Your task to perform on an android device: Clear the cart on ebay.com. Add "usb-a to usb-b" to the cart on ebay.com Image 0: 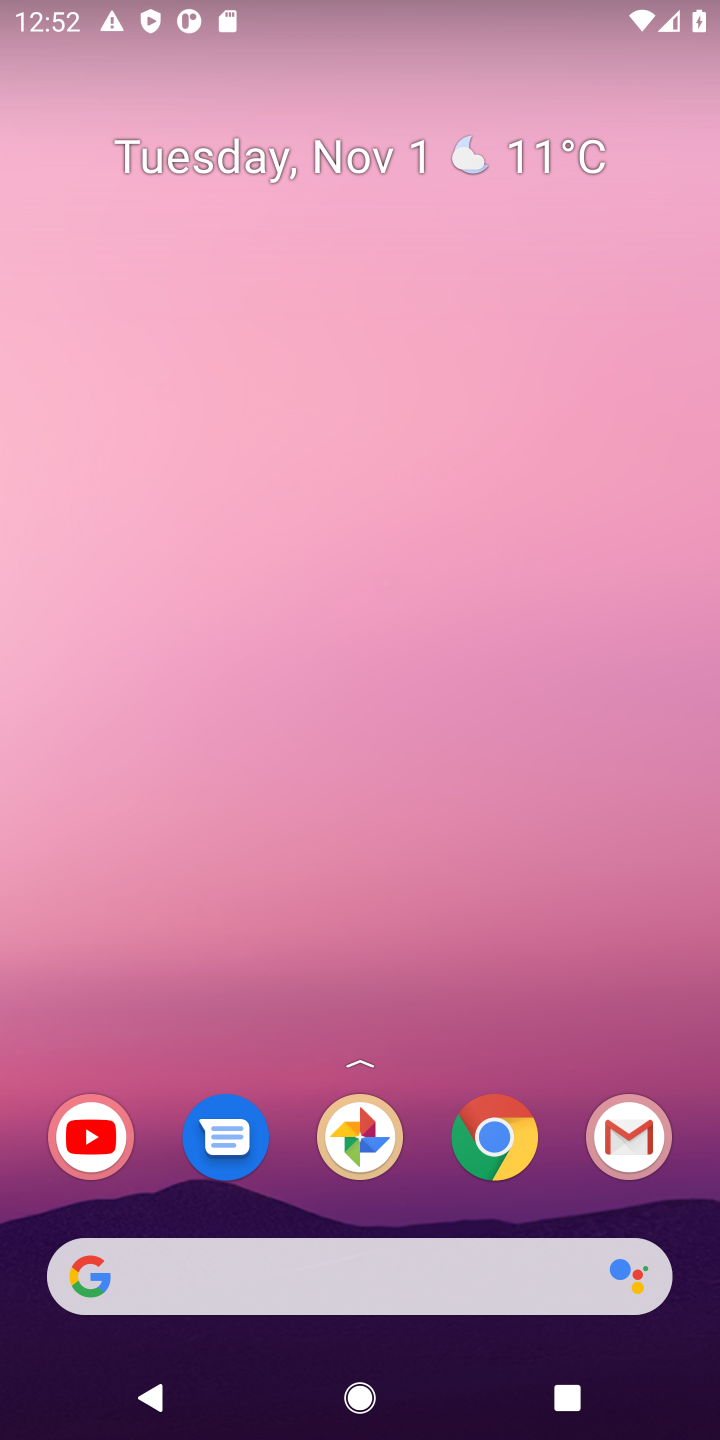
Step 0: click (506, 1143)
Your task to perform on an android device: Clear the cart on ebay.com. Add "usb-a to usb-b" to the cart on ebay.com Image 1: 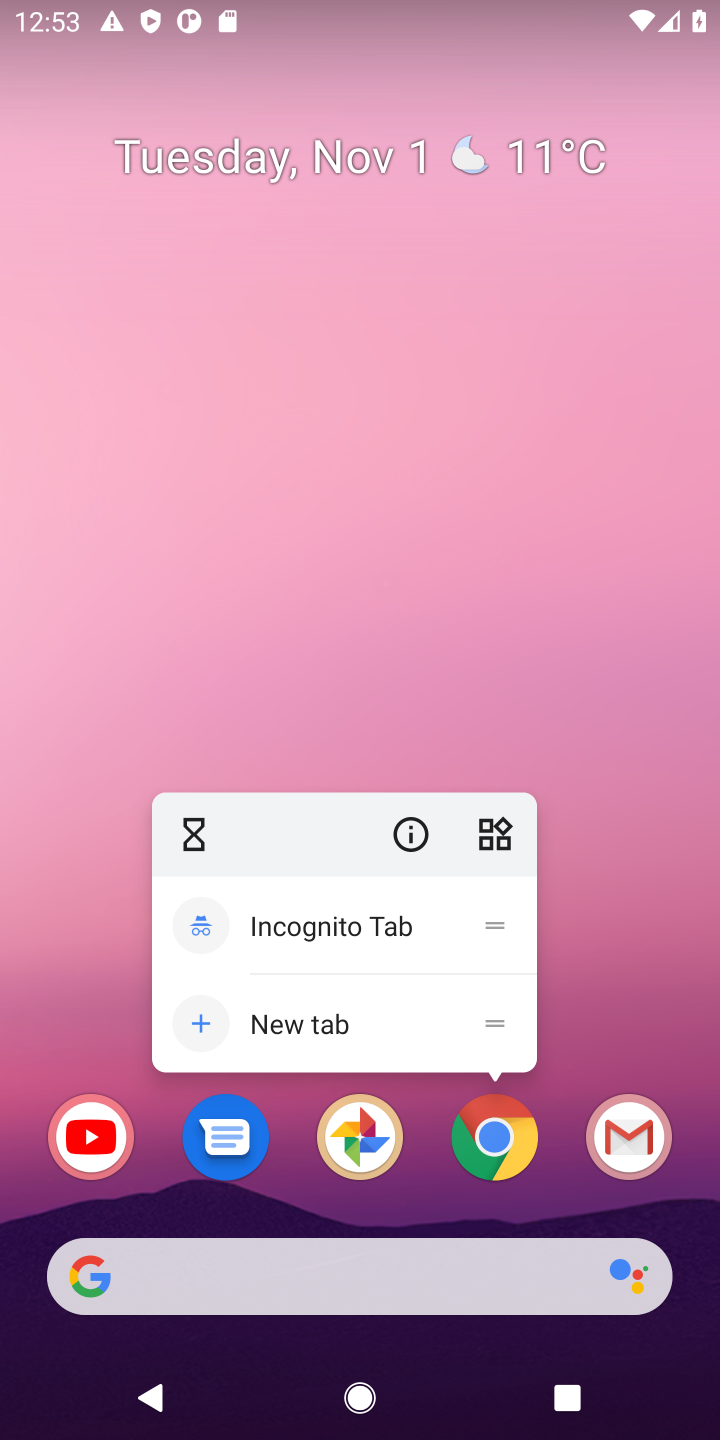
Step 1: click (476, 1145)
Your task to perform on an android device: Clear the cart on ebay.com. Add "usb-a to usb-b" to the cart on ebay.com Image 2: 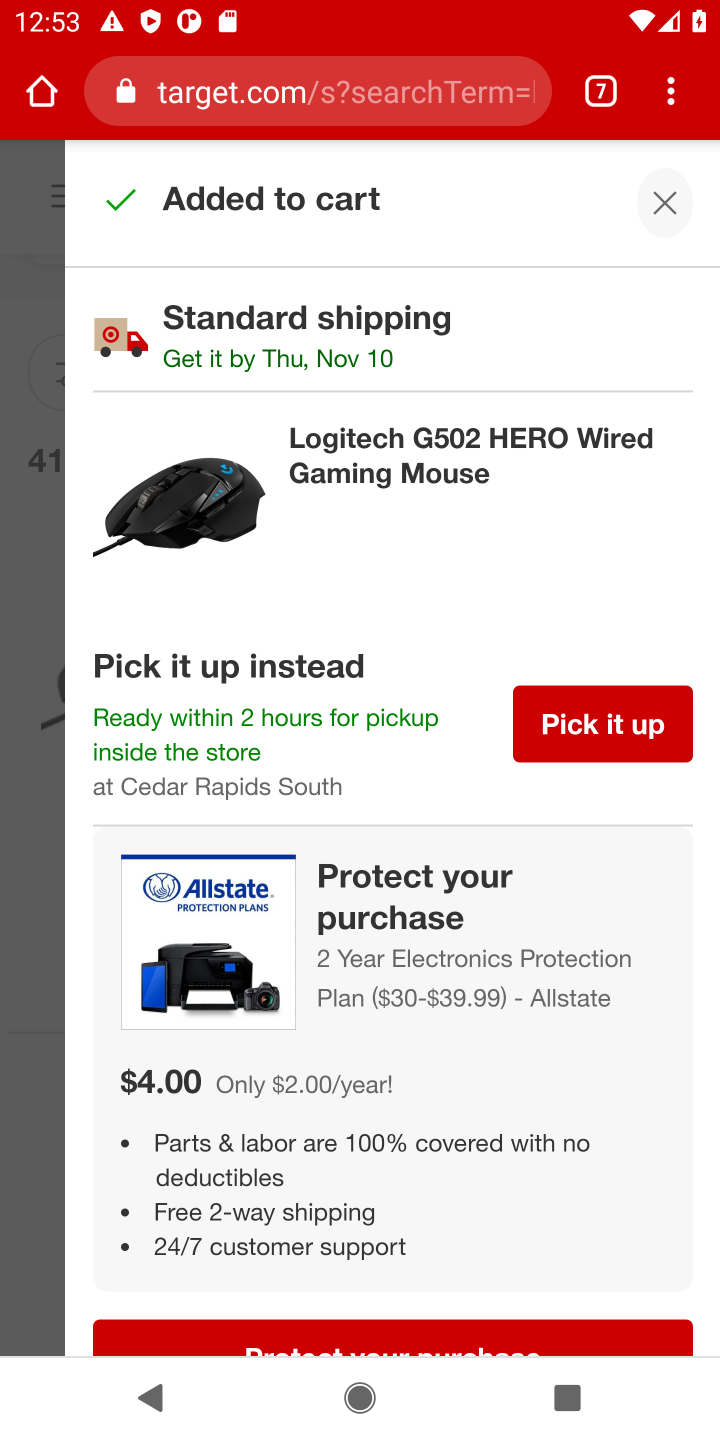
Step 2: click (589, 81)
Your task to perform on an android device: Clear the cart on ebay.com. Add "usb-a to usb-b" to the cart on ebay.com Image 3: 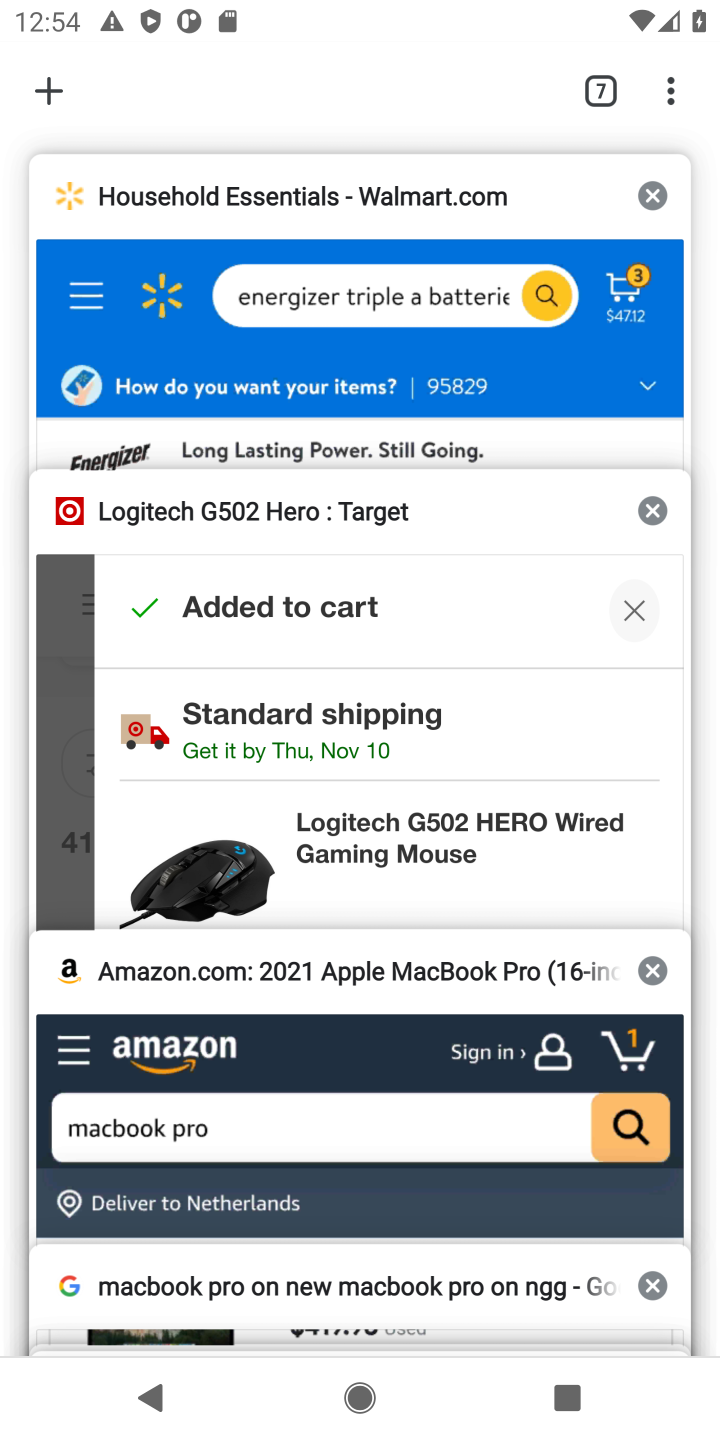
Step 3: drag from (274, 1176) to (428, 677)
Your task to perform on an android device: Clear the cart on ebay.com. Add "usb-a to usb-b" to the cart on ebay.com Image 4: 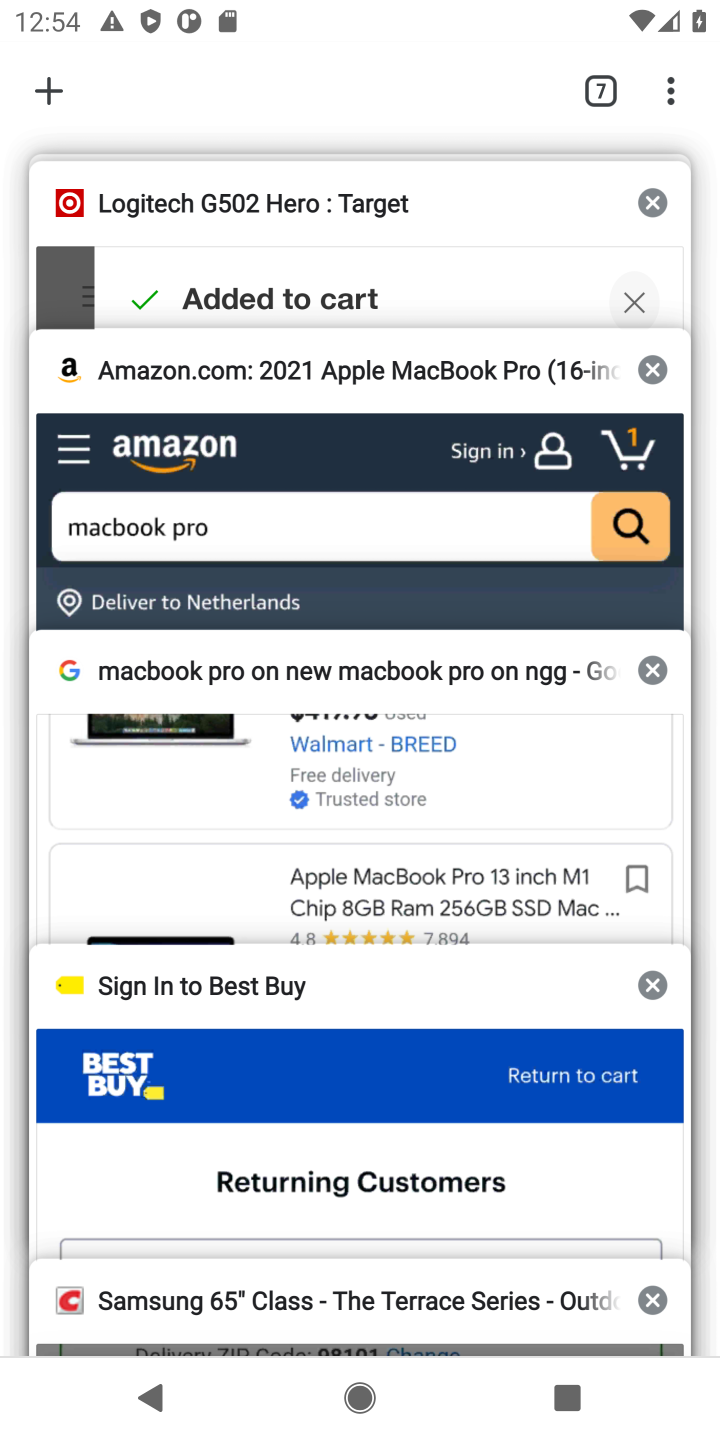
Step 4: drag from (420, 1110) to (514, 279)
Your task to perform on an android device: Clear the cart on ebay.com. Add "usb-a to usb-b" to the cart on ebay.com Image 5: 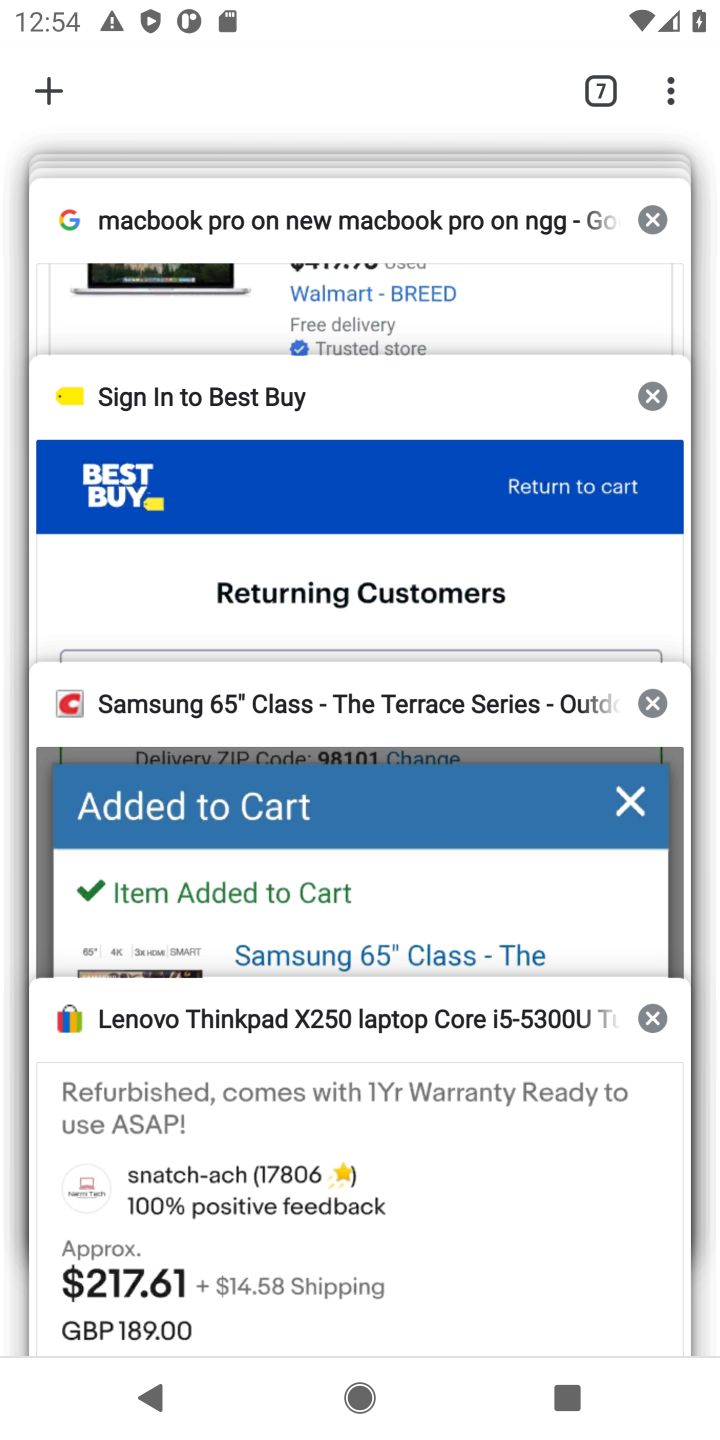
Step 5: click (157, 1196)
Your task to perform on an android device: Clear the cart on ebay.com. Add "usb-a to usb-b" to the cart on ebay.com Image 6: 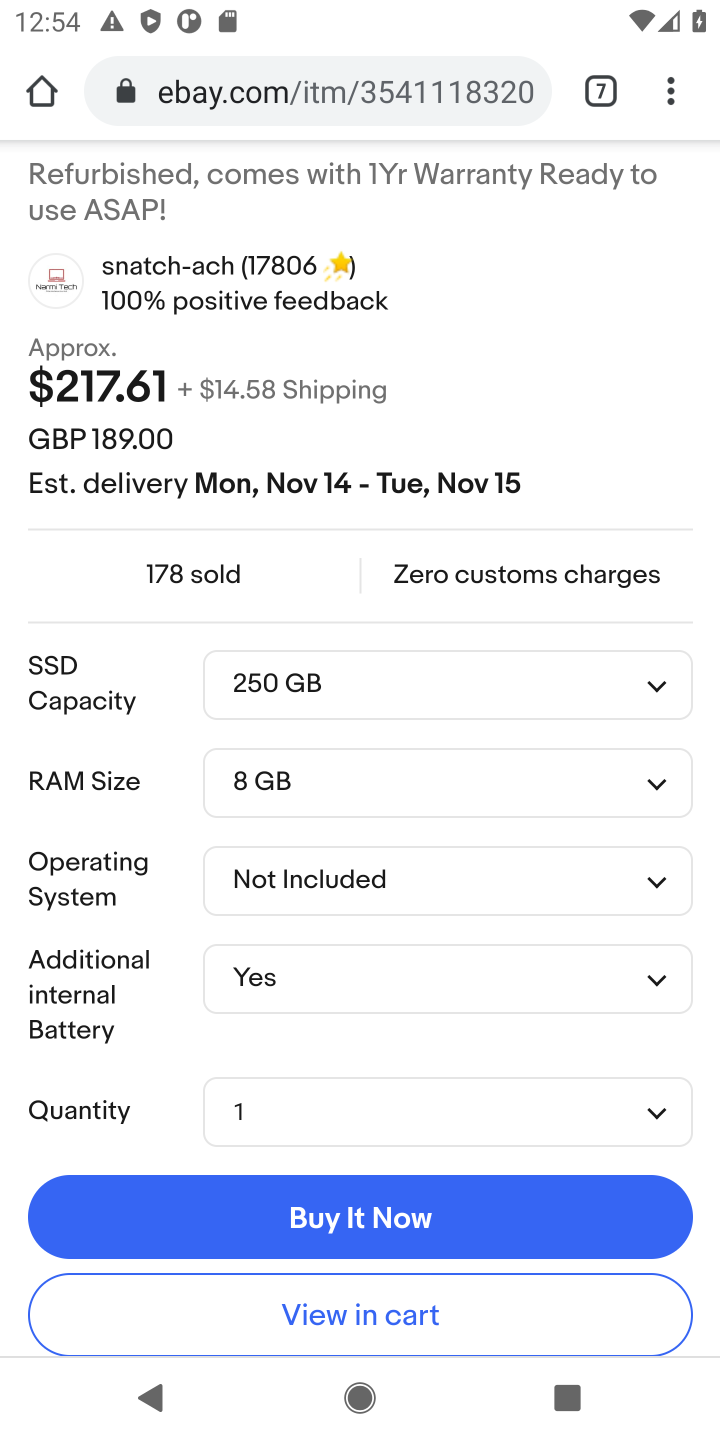
Step 6: drag from (527, 386) to (410, 1252)
Your task to perform on an android device: Clear the cart on ebay.com. Add "usb-a to usb-b" to the cart on ebay.com Image 7: 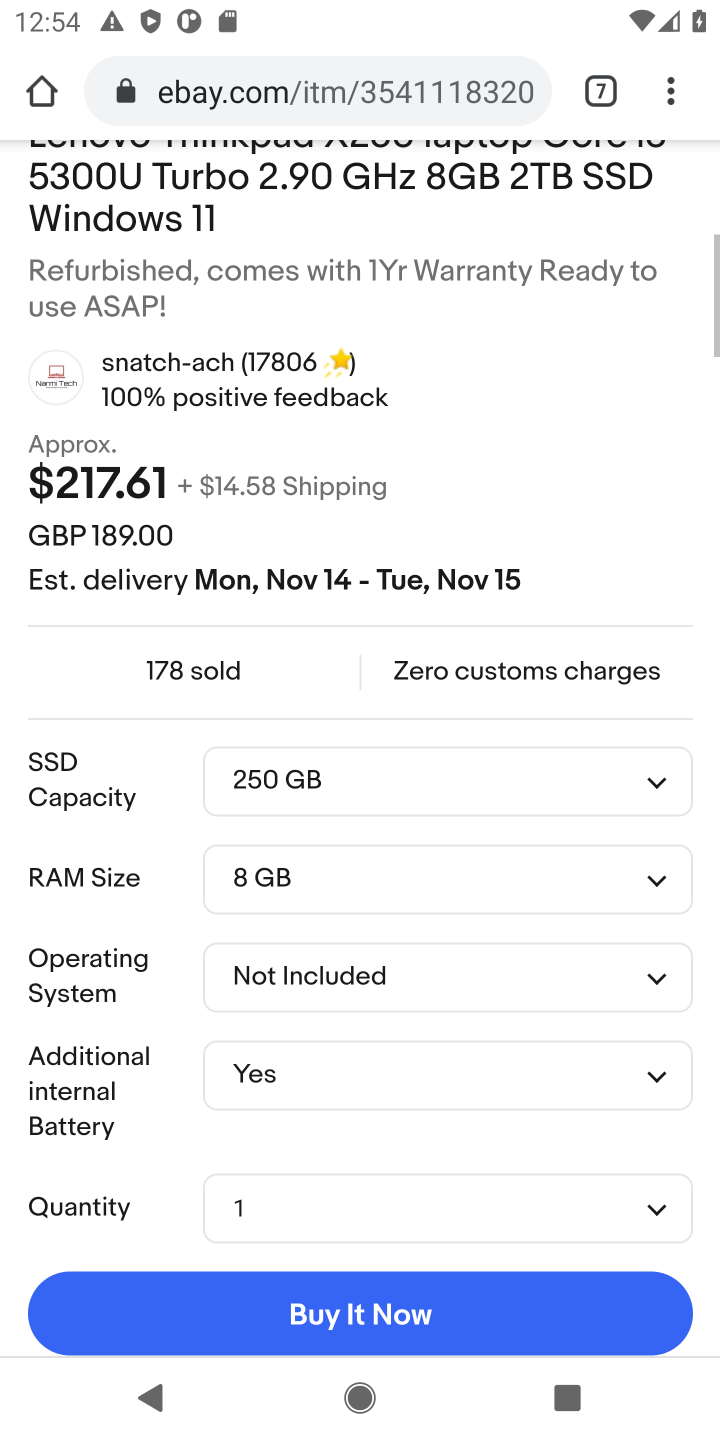
Step 7: drag from (481, 1104) to (536, 1393)
Your task to perform on an android device: Clear the cart on ebay.com. Add "usb-a to usb-b" to the cart on ebay.com Image 8: 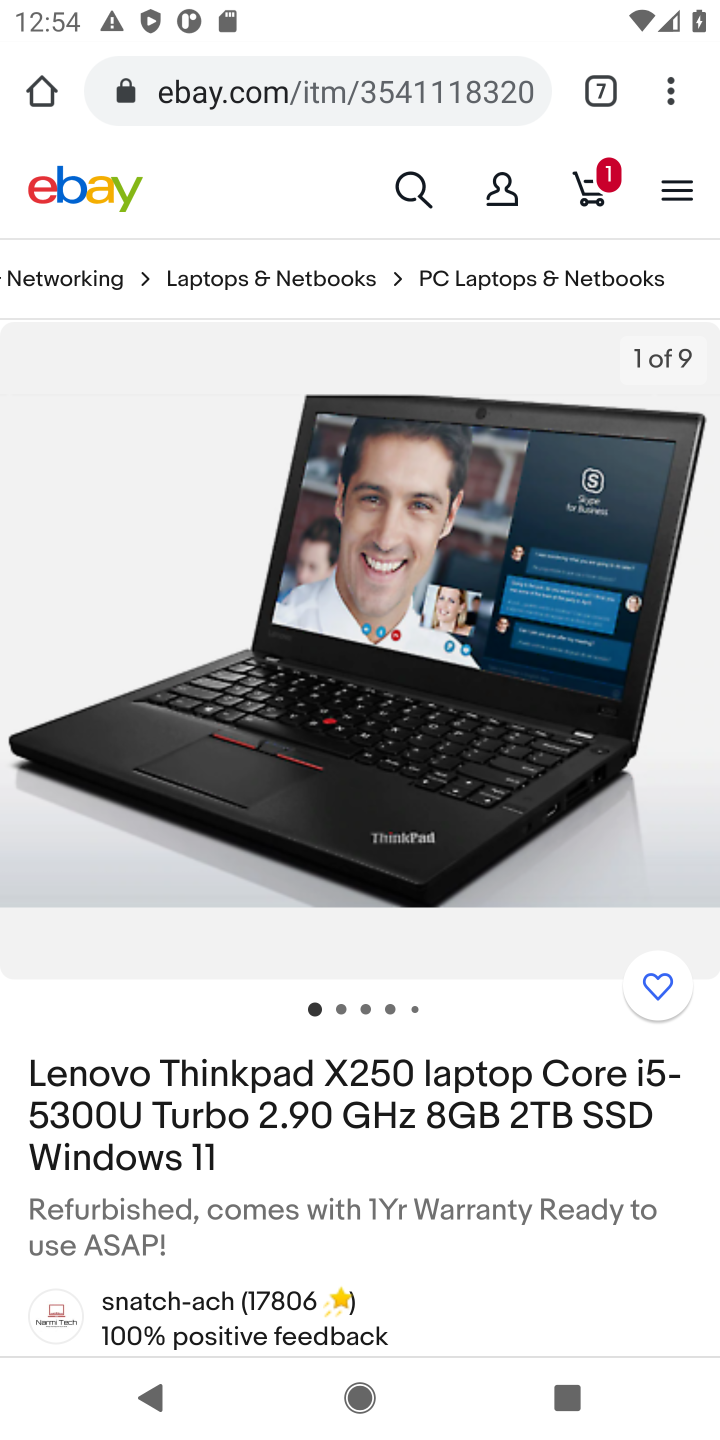
Step 8: drag from (616, 489) to (626, 1238)
Your task to perform on an android device: Clear the cart on ebay.com. Add "usb-a to usb-b" to the cart on ebay.com Image 9: 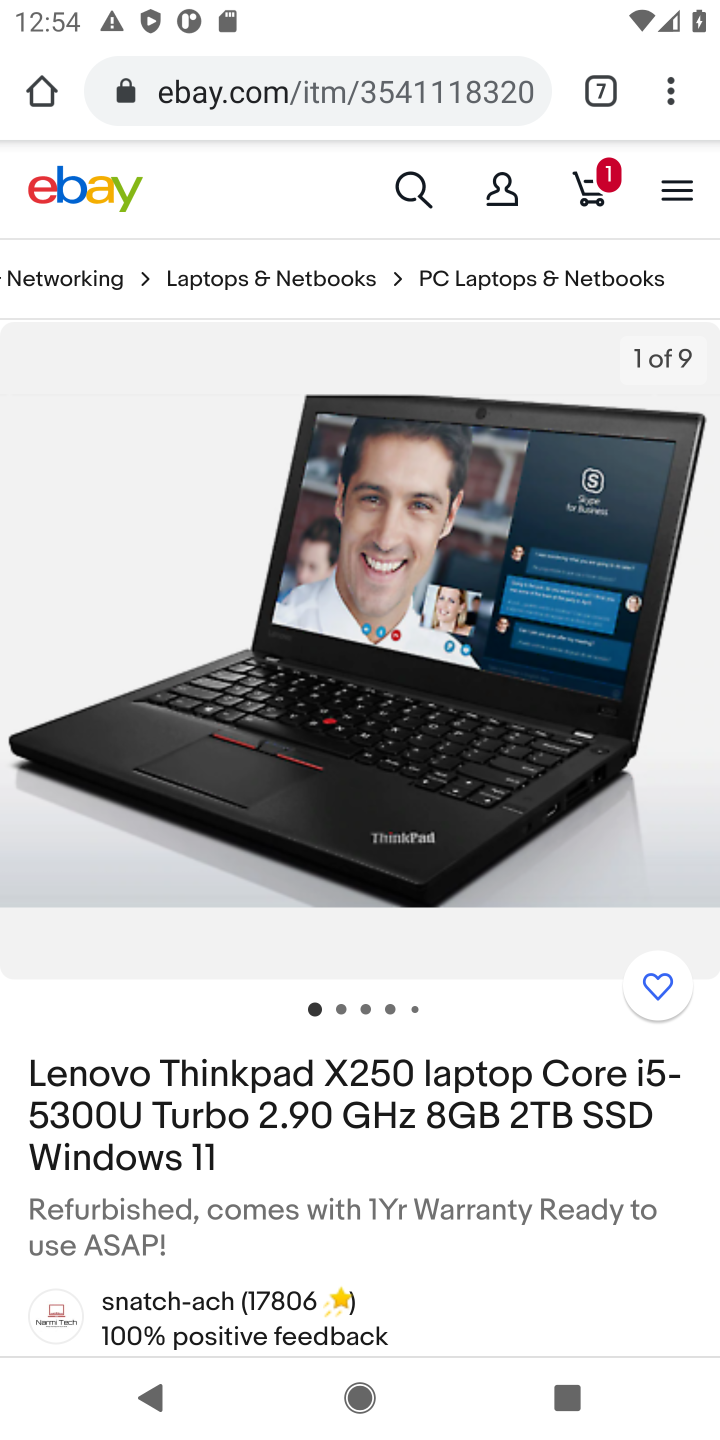
Step 9: click (596, 181)
Your task to perform on an android device: Clear the cart on ebay.com. Add "usb-a to usb-b" to the cart on ebay.com Image 10: 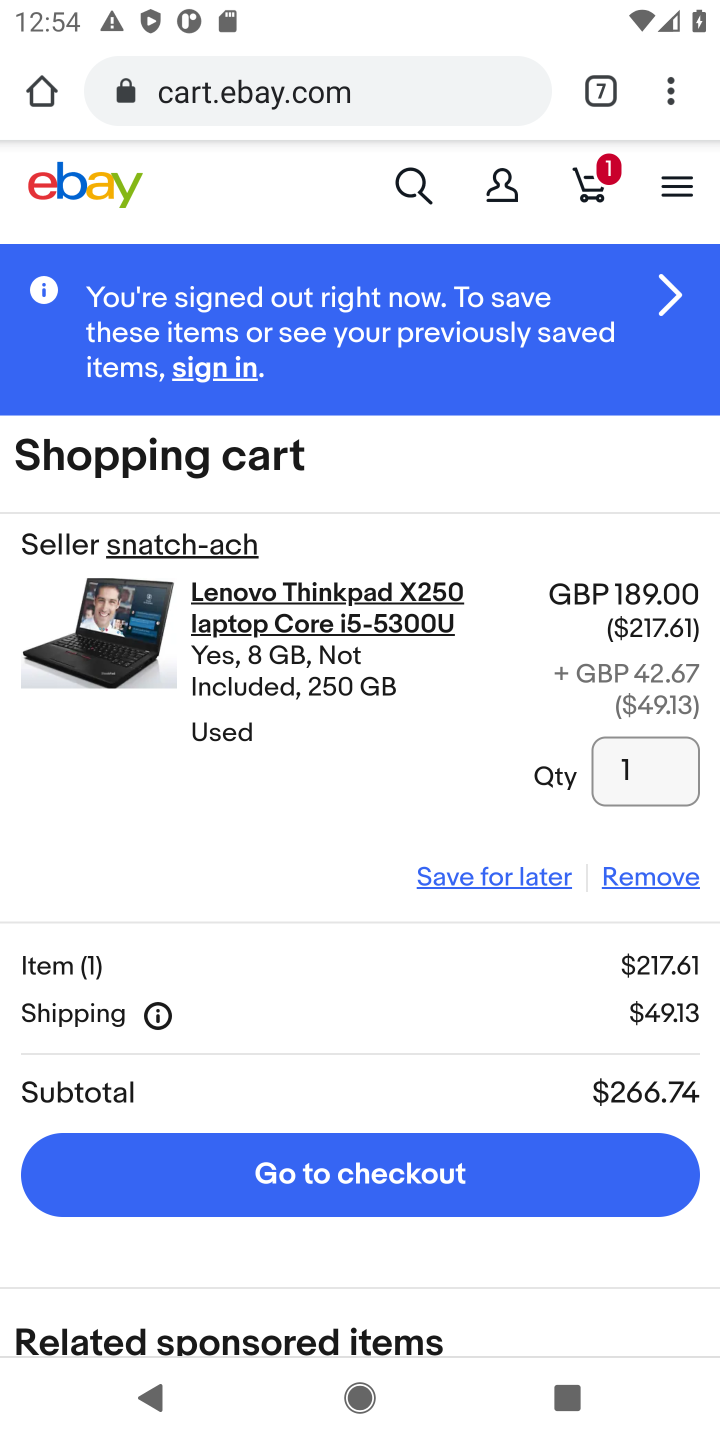
Step 10: click (624, 860)
Your task to perform on an android device: Clear the cart on ebay.com. Add "usb-a to usb-b" to the cart on ebay.com Image 11: 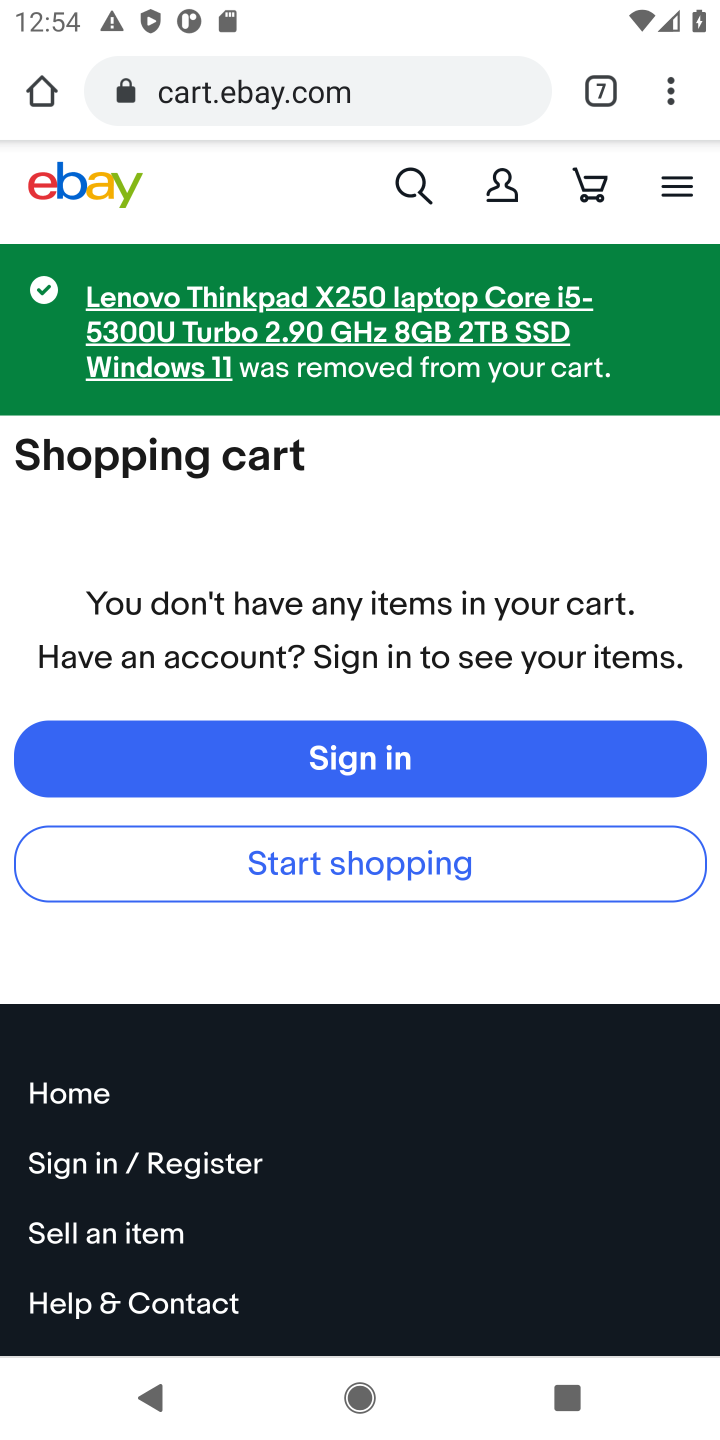
Step 11: click (410, 178)
Your task to perform on an android device: Clear the cart on ebay.com. Add "usb-a to usb-b" to the cart on ebay.com Image 12: 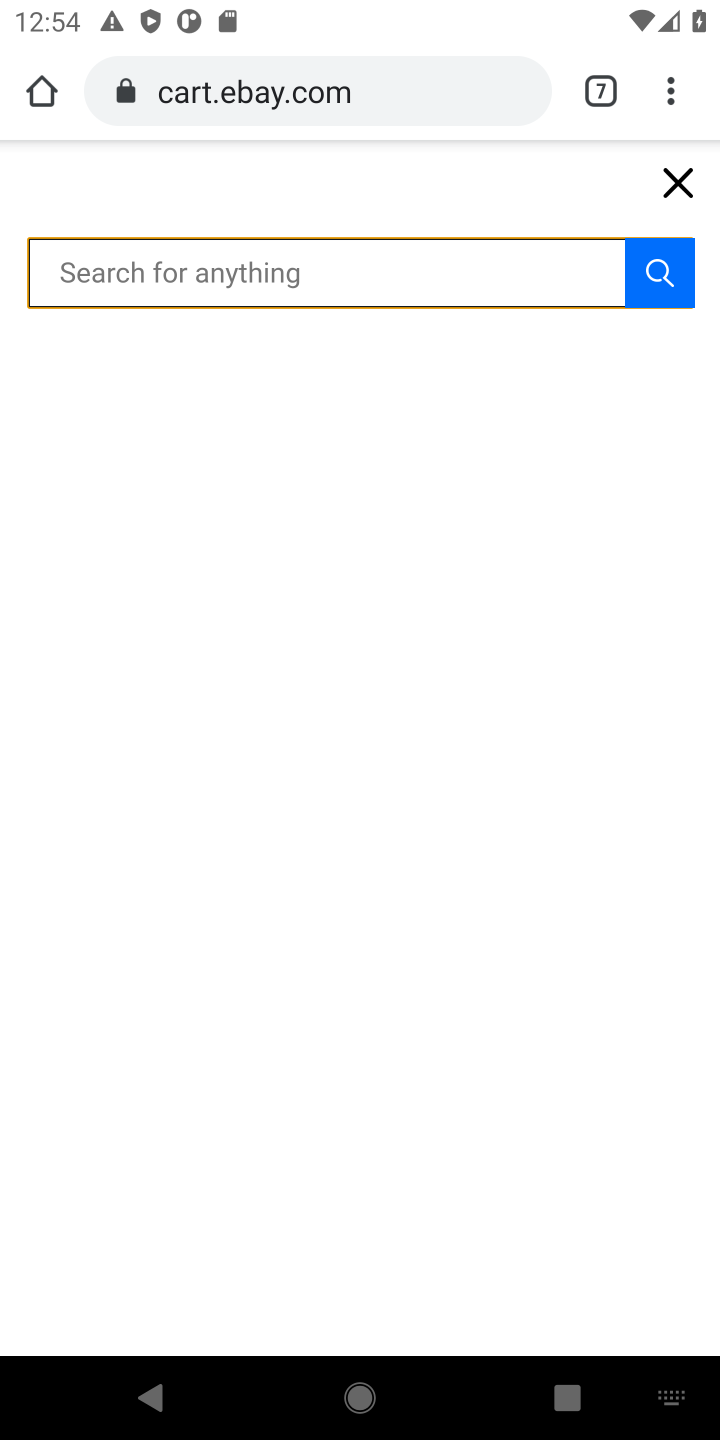
Step 12: type "usb-a to usb-b"
Your task to perform on an android device: Clear the cart on ebay.com. Add "usb-a to usb-b" to the cart on ebay.com Image 13: 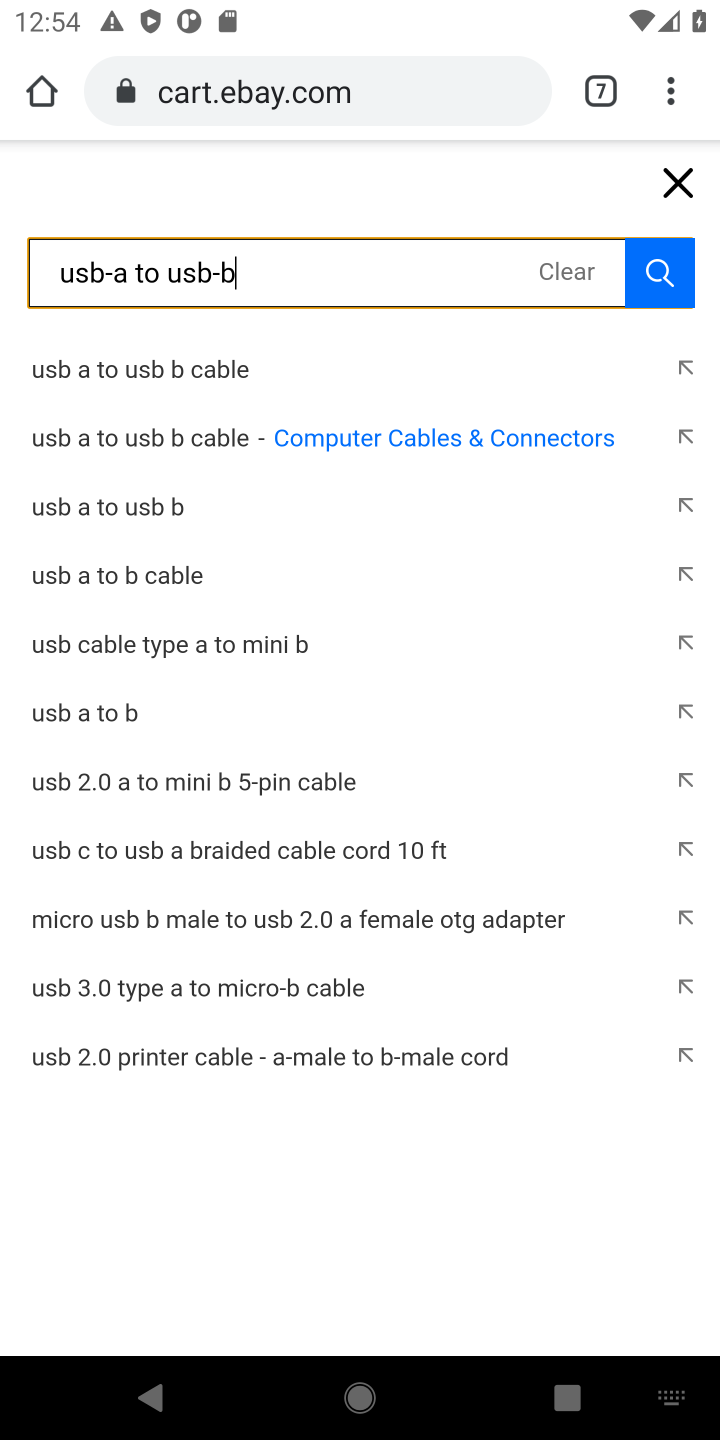
Step 13: click (44, 429)
Your task to perform on an android device: Clear the cart on ebay.com. Add "usb-a to usb-b" to the cart on ebay.com Image 14: 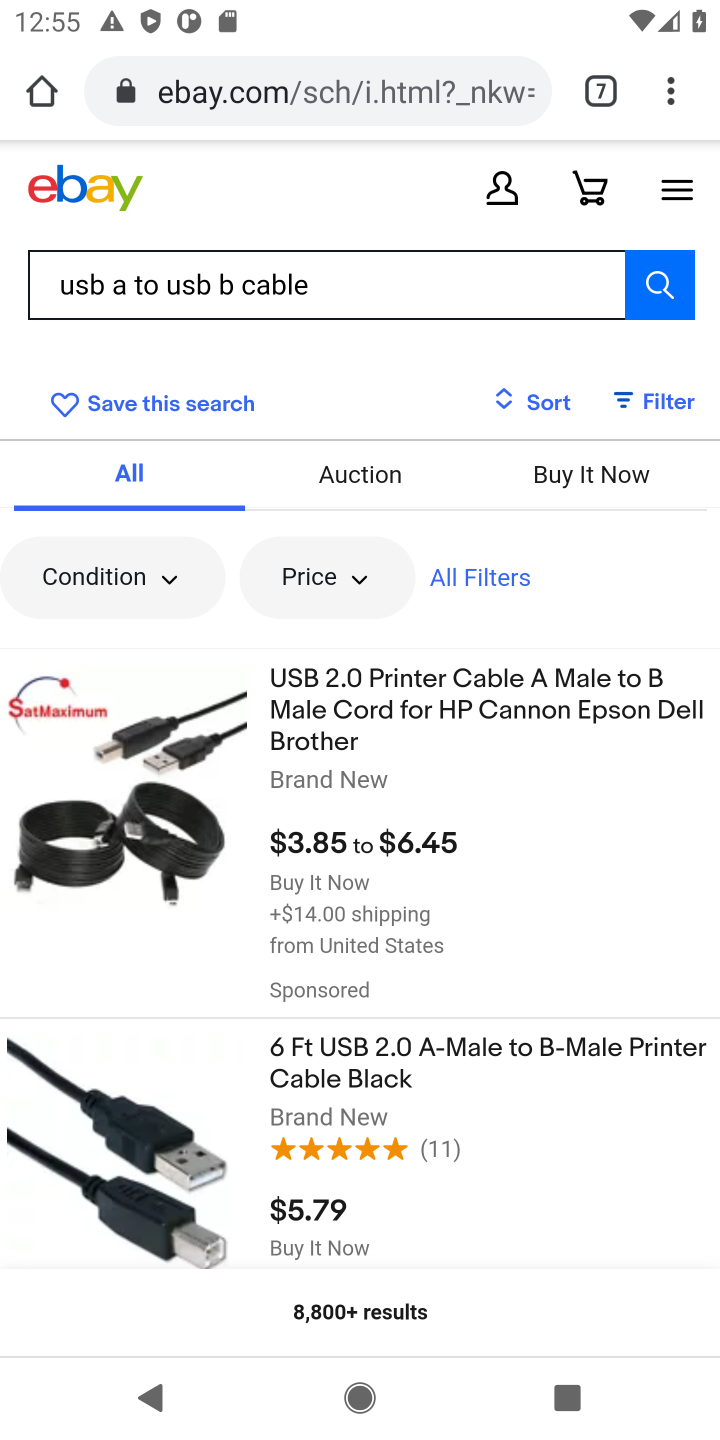
Step 14: click (452, 693)
Your task to perform on an android device: Clear the cart on ebay.com. Add "usb-a to usb-b" to the cart on ebay.com Image 15: 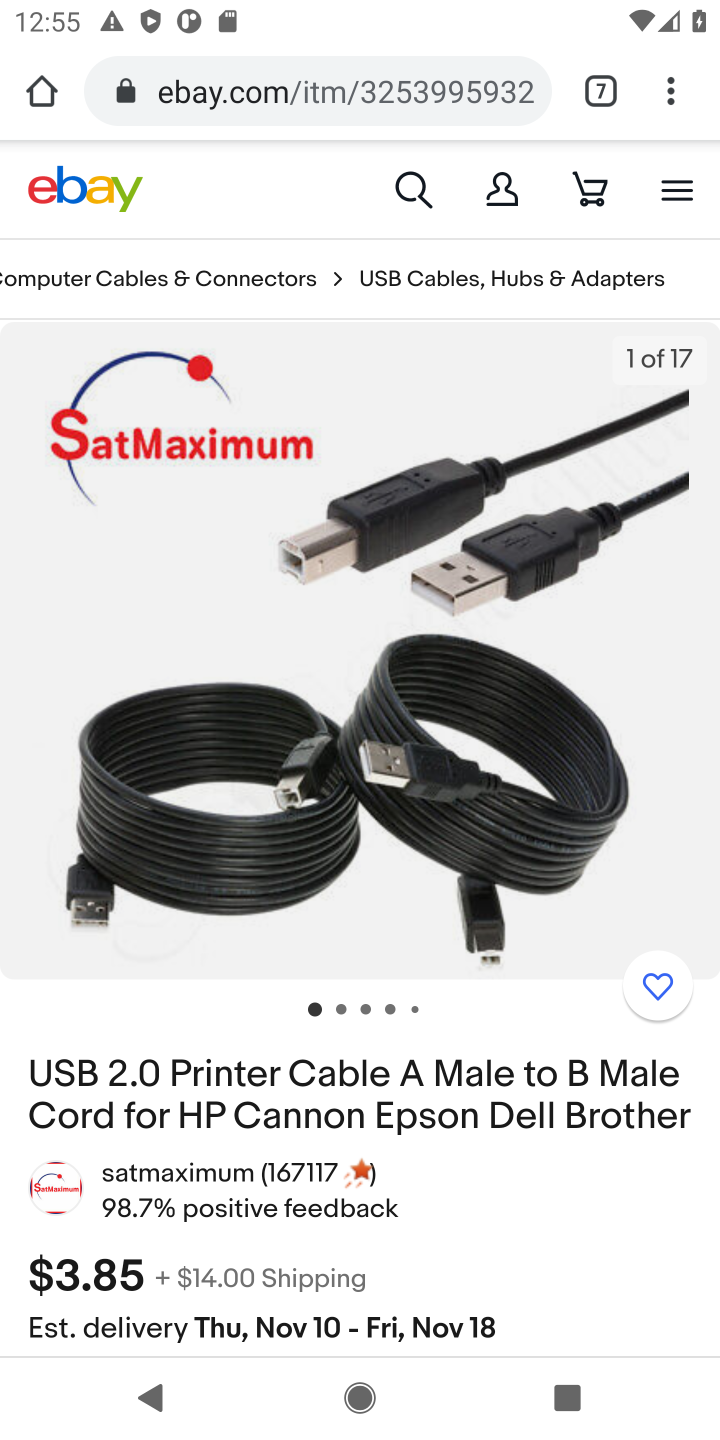
Step 15: drag from (420, 1206) to (663, 309)
Your task to perform on an android device: Clear the cart on ebay.com. Add "usb-a to usb-b" to the cart on ebay.com Image 16: 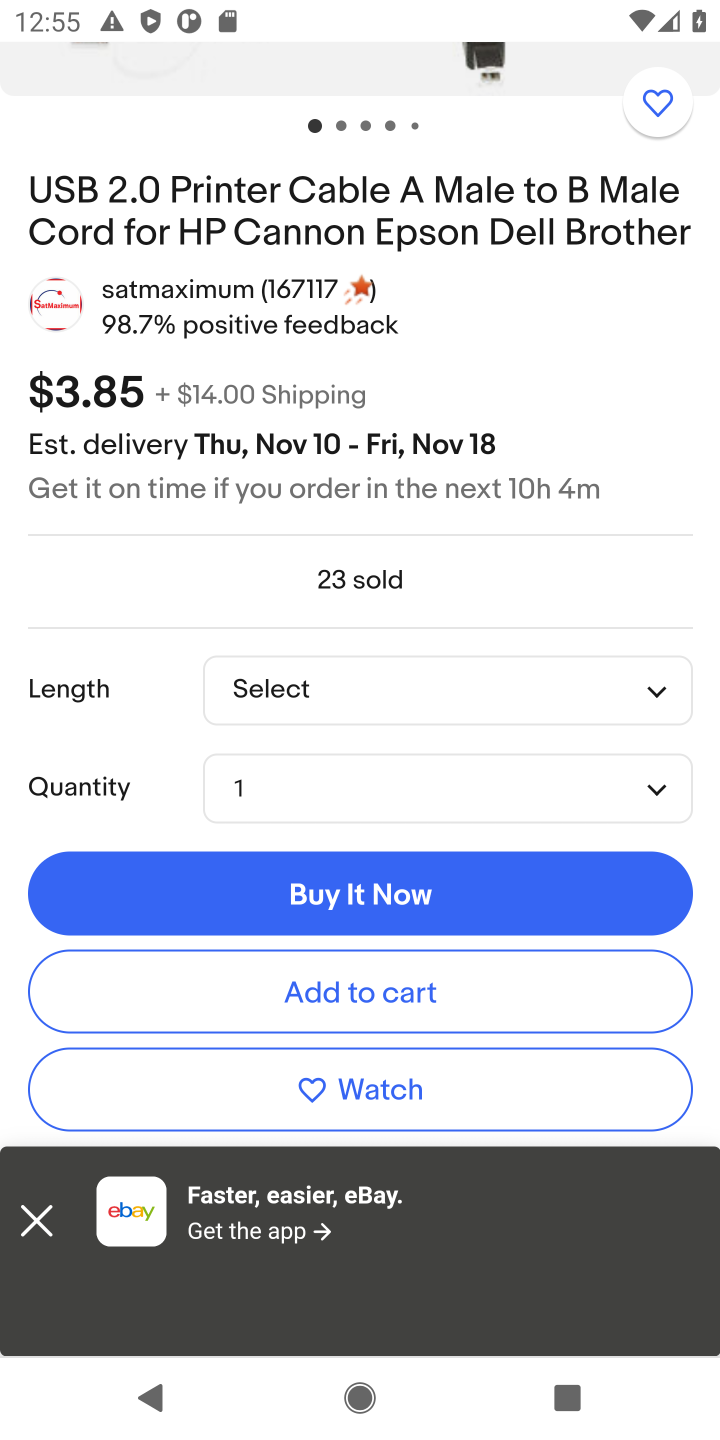
Step 16: click (403, 982)
Your task to perform on an android device: Clear the cart on ebay.com. Add "usb-a to usb-b" to the cart on ebay.com Image 17: 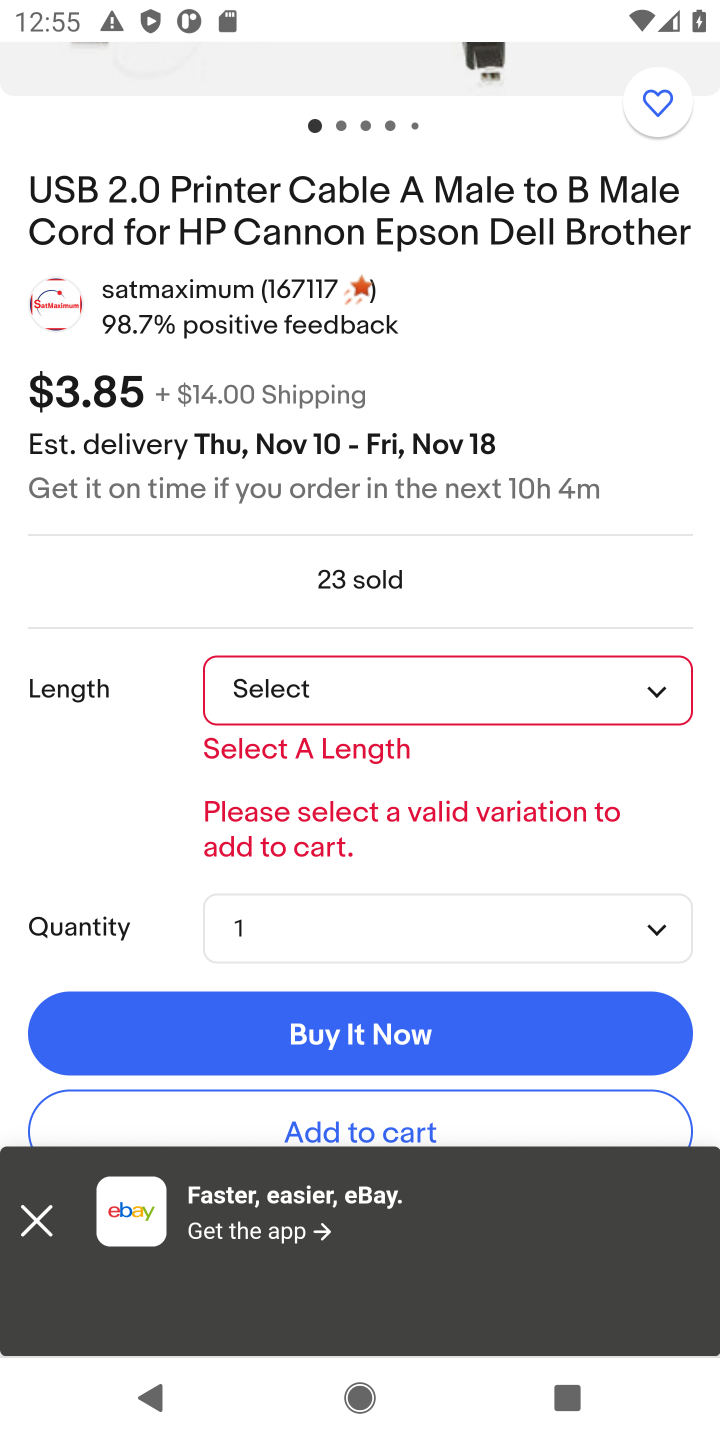
Step 17: click (659, 681)
Your task to perform on an android device: Clear the cart on ebay.com. Add "usb-a to usb-b" to the cart on ebay.com Image 18: 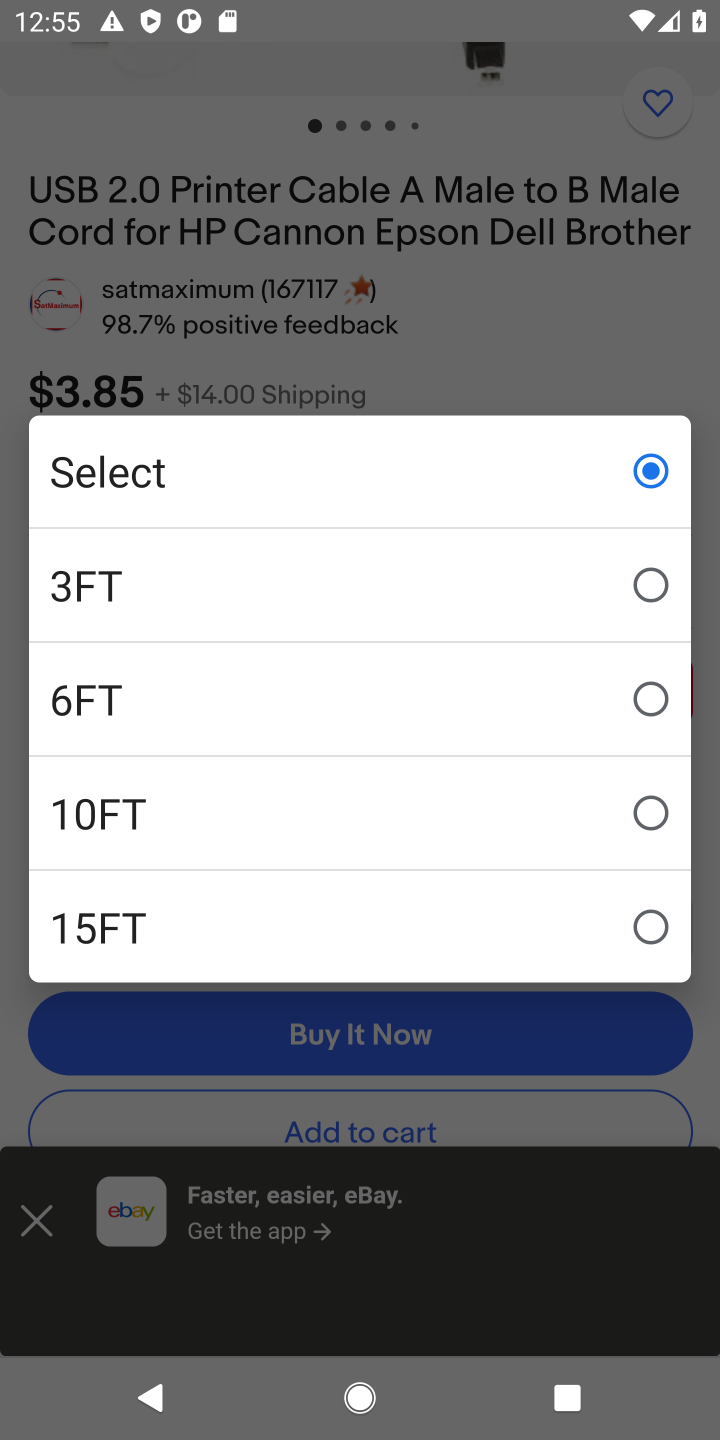
Step 18: click (657, 807)
Your task to perform on an android device: Clear the cart on ebay.com. Add "usb-a to usb-b" to the cart on ebay.com Image 19: 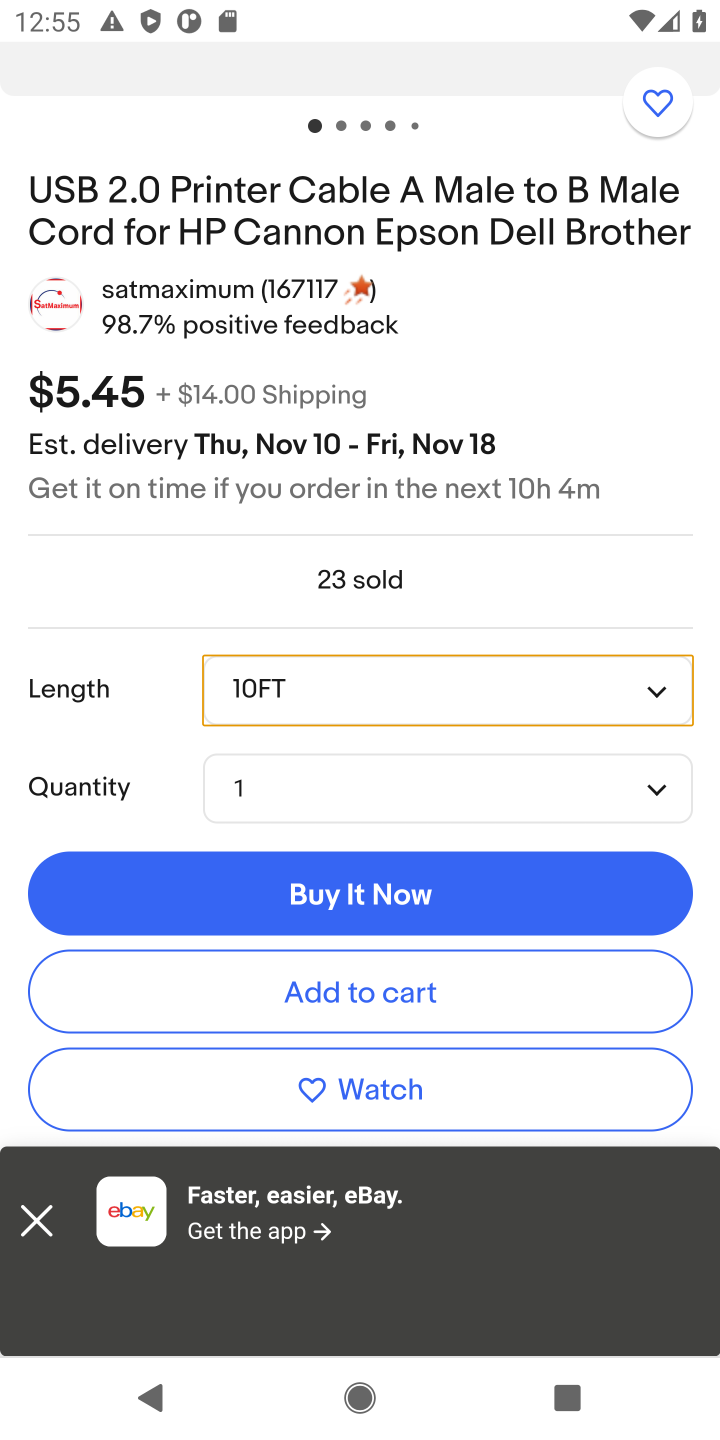
Step 19: click (442, 993)
Your task to perform on an android device: Clear the cart on ebay.com. Add "usb-a to usb-b" to the cart on ebay.com Image 20: 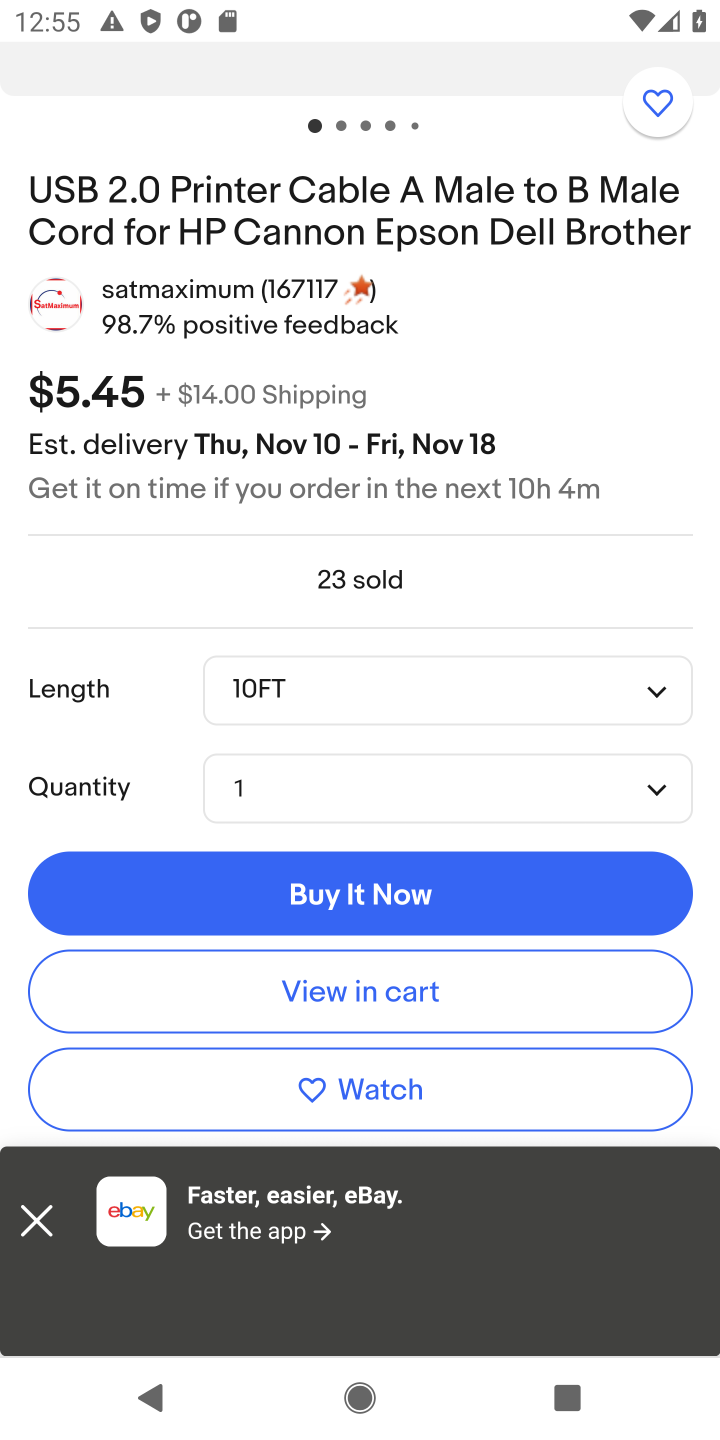
Step 20: task complete